Your task to perform on an android device: Clear the cart on bestbuy.com. Search for "apple airpods" on bestbuy.com, select the first entry, add it to the cart, then select checkout. Image 0: 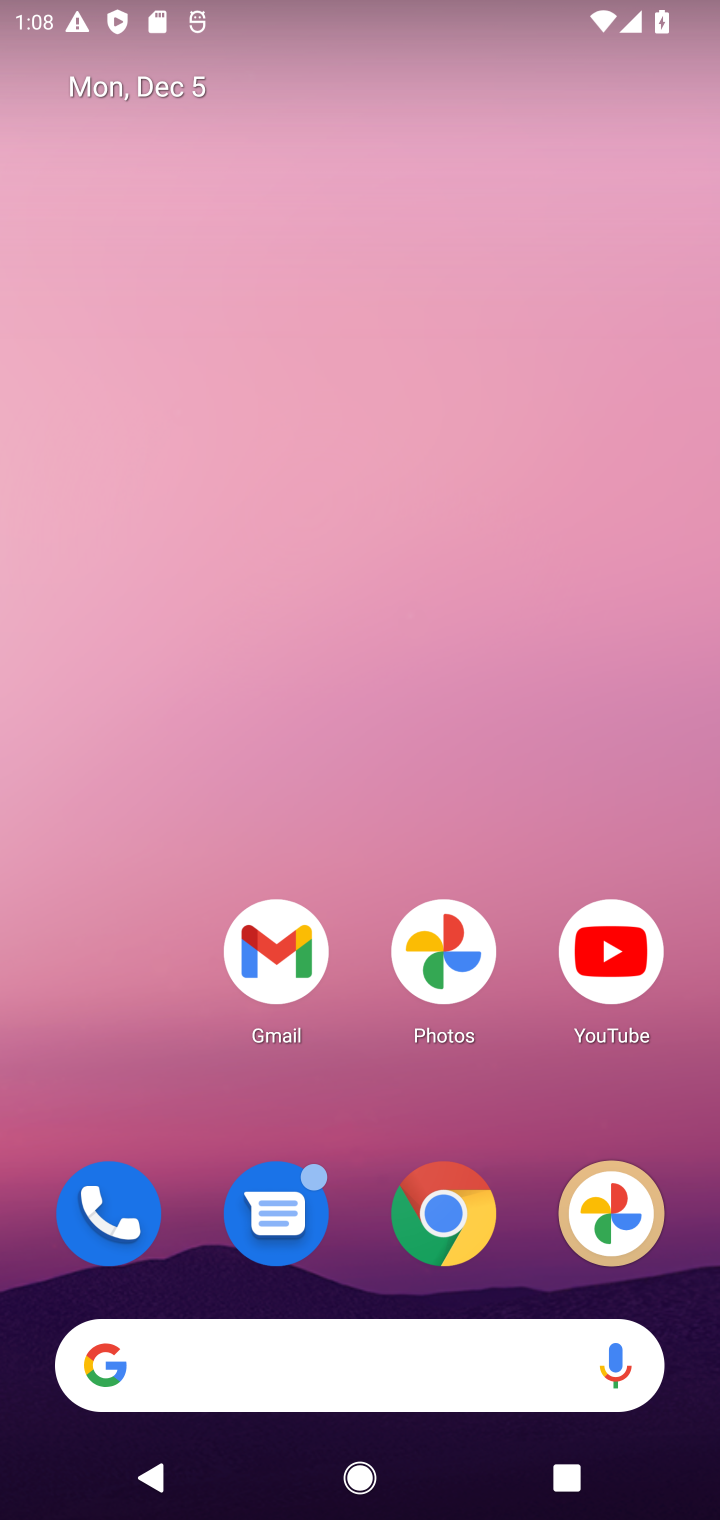
Step 0: click (461, 1213)
Your task to perform on an android device: Clear the cart on bestbuy.com. Search for "apple airpods" on bestbuy.com, select the first entry, add it to the cart, then select checkout. Image 1: 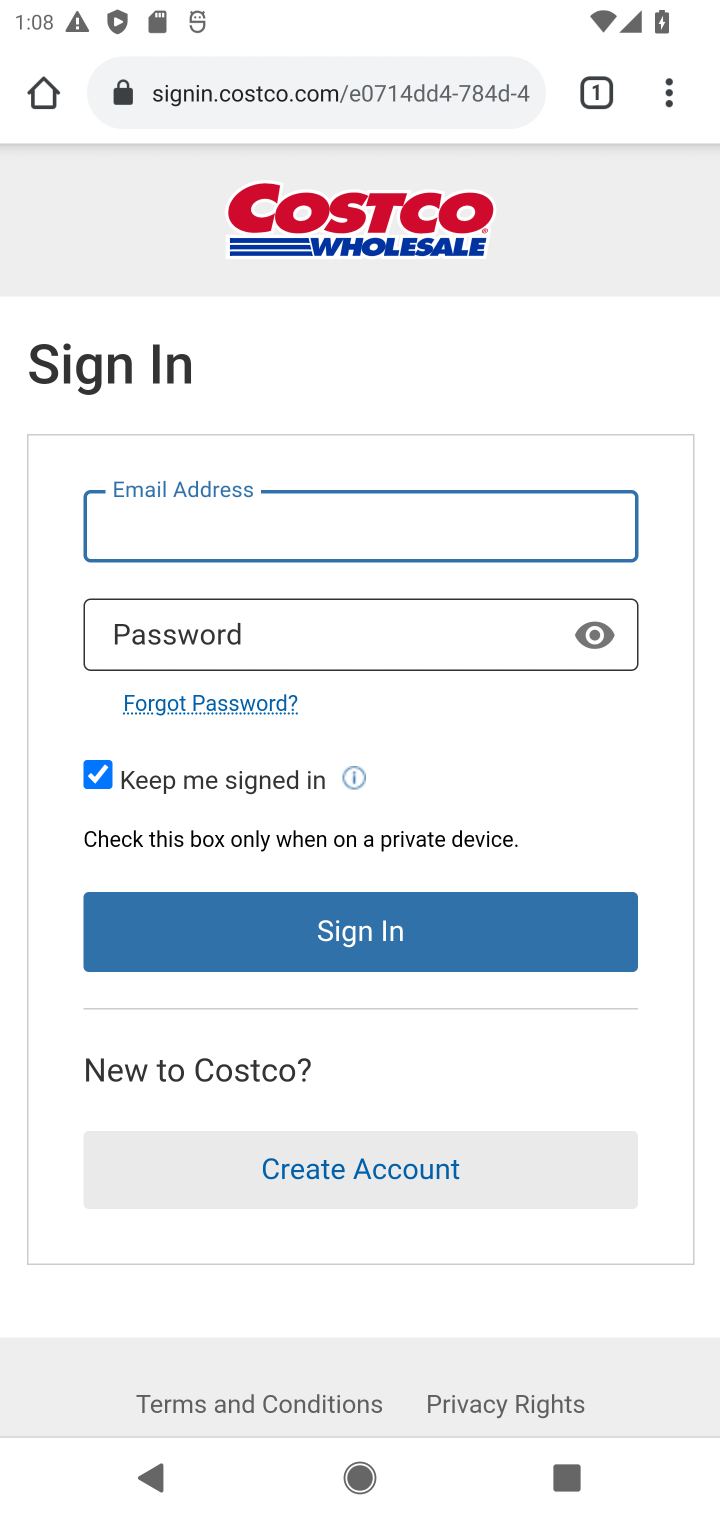
Step 1: click (328, 77)
Your task to perform on an android device: Clear the cart on bestbuy.com. Search for "apple airpods" on bestbuy.com, select the first entry, add it to the cart, then select checkout. Image 2: 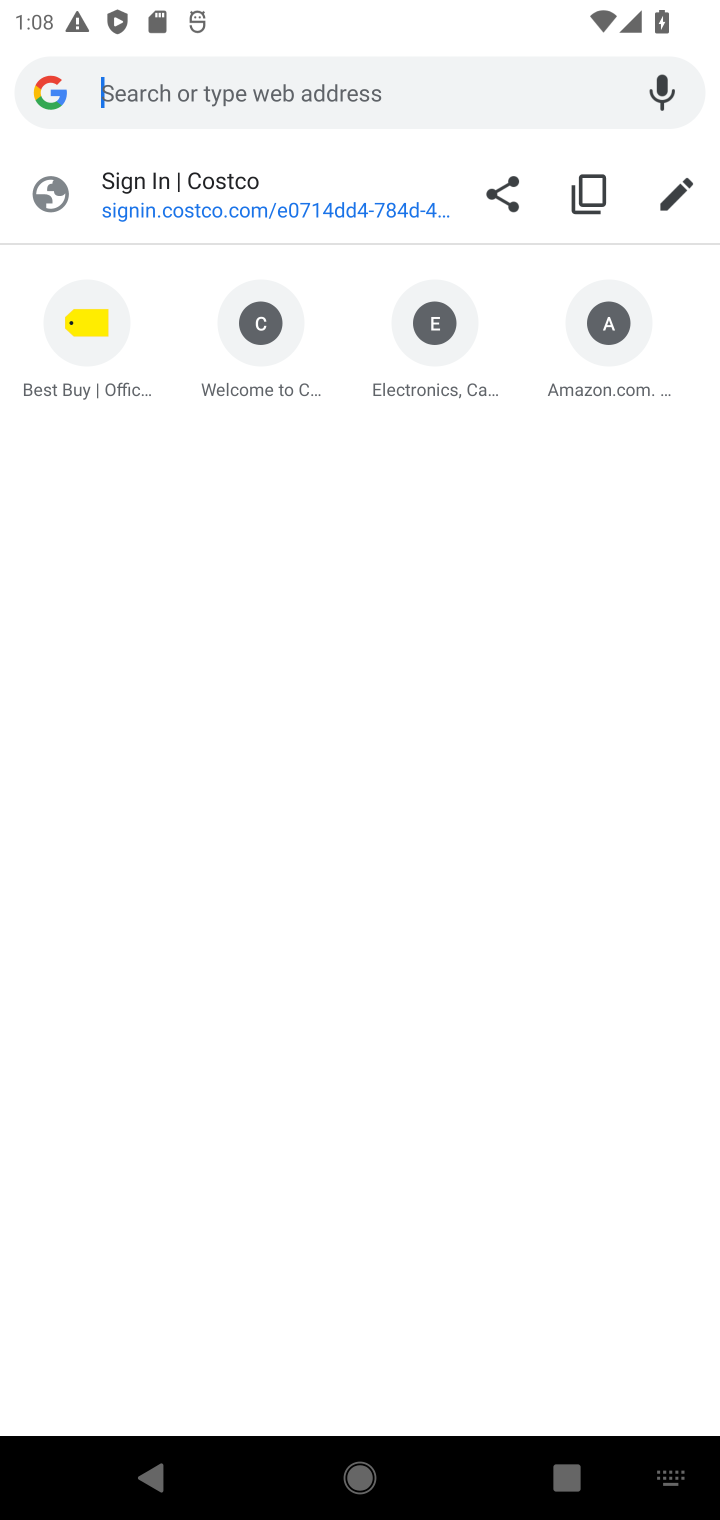
Step 2: click (65, 400)
Your task to perform on an android device: Clear the cart on bestbuy.com. Search for "apple airpods" on bestbuy.com, select the first entry, add it to the cart, then select checkout. Image 3: 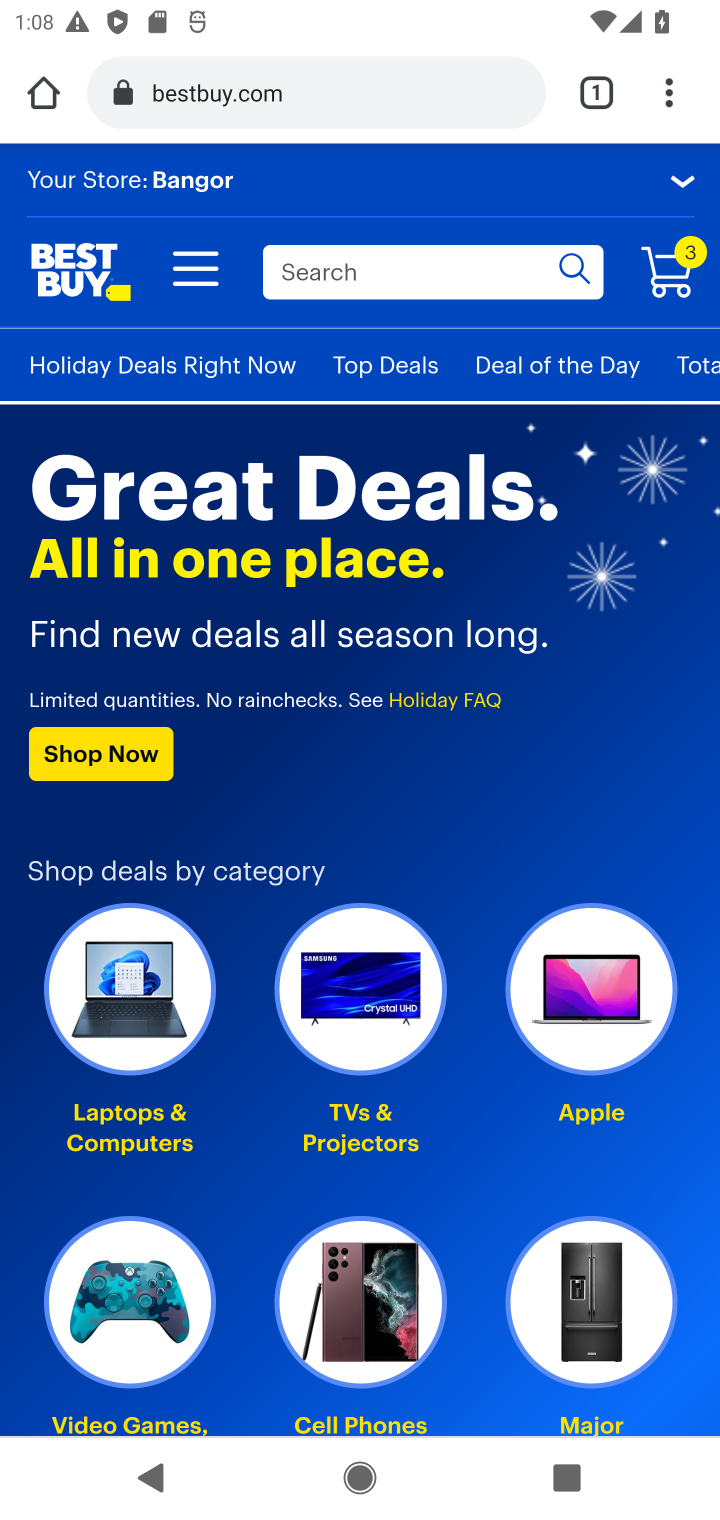
Step 3: click (675, 272)
Your task to perform on an android device: Clear the cart on bestbuy.com. Search for "apple airpods" on bestbuy.com, select the first entry, add it to the cart, then select checkout. Image 4: 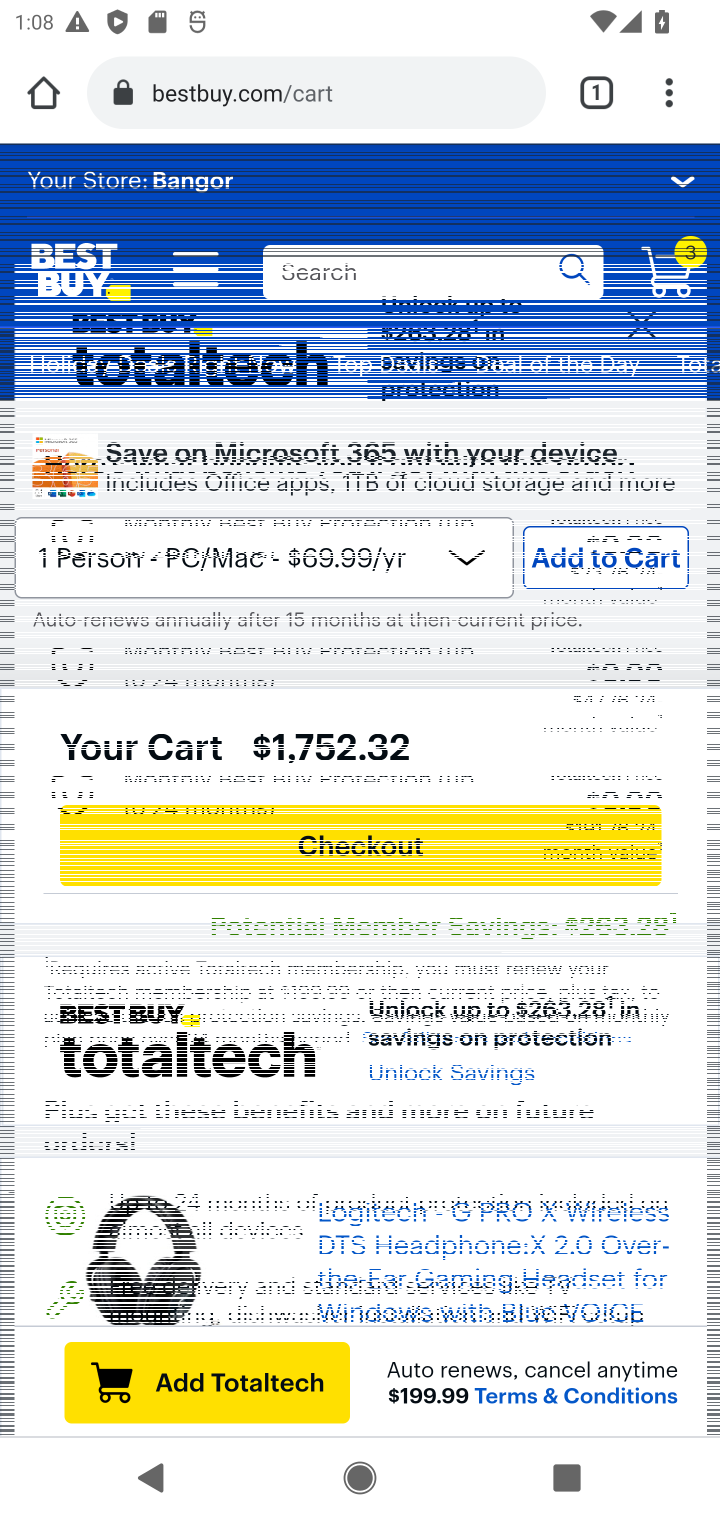
Step 4: click (645, 330)
Your task to perform on an android device: Clear the cart on bestbuy.com. Search for "apple airpods" on bestbuy.com, select the first entry, add it to the cart, then select checkout. Image 5: 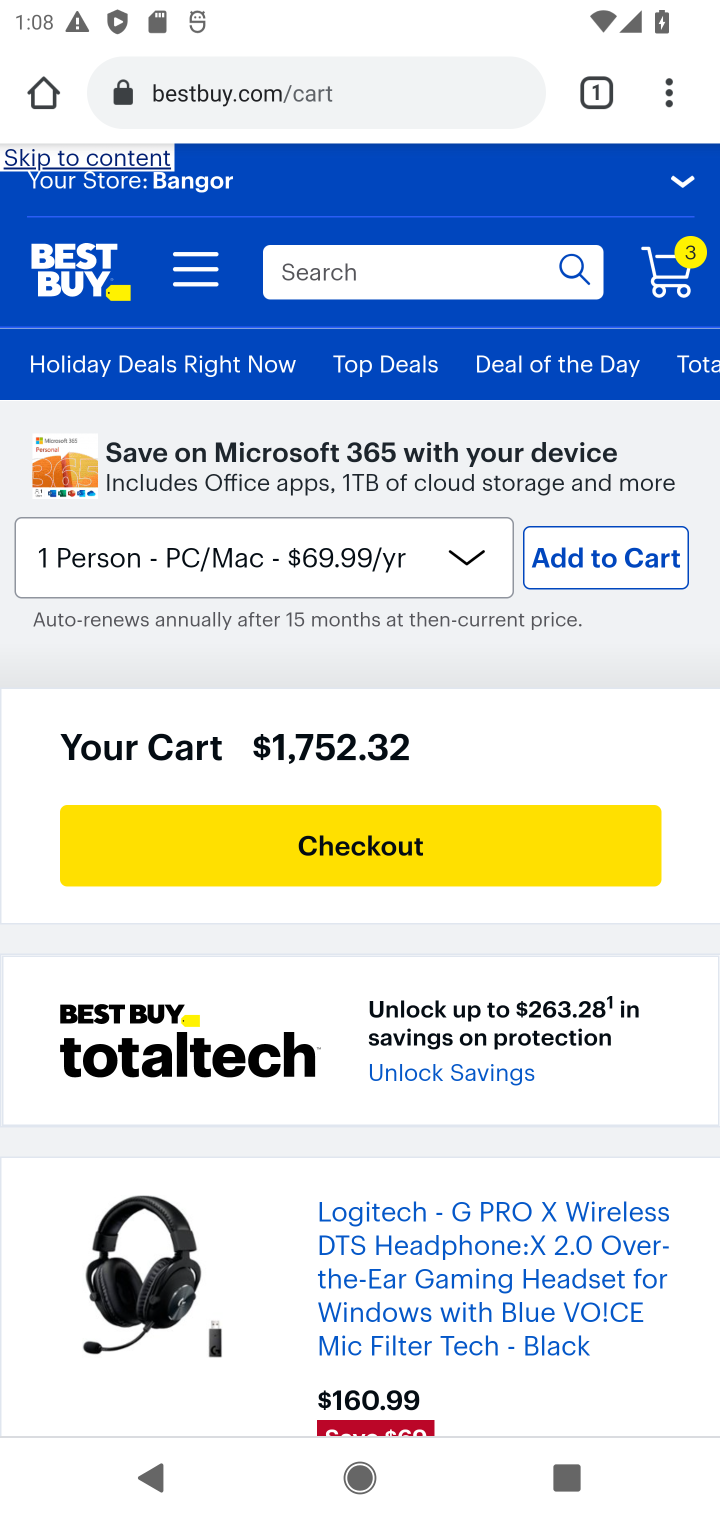
Step 5: drag from (340, 889) to (382, 375)
Your task to perform on an android device: Clear the cart on bestbuy.com. Search for "apple airpods" on bestbuy.com, select the first entry, add it to the cart, then select checkout. Image 6: 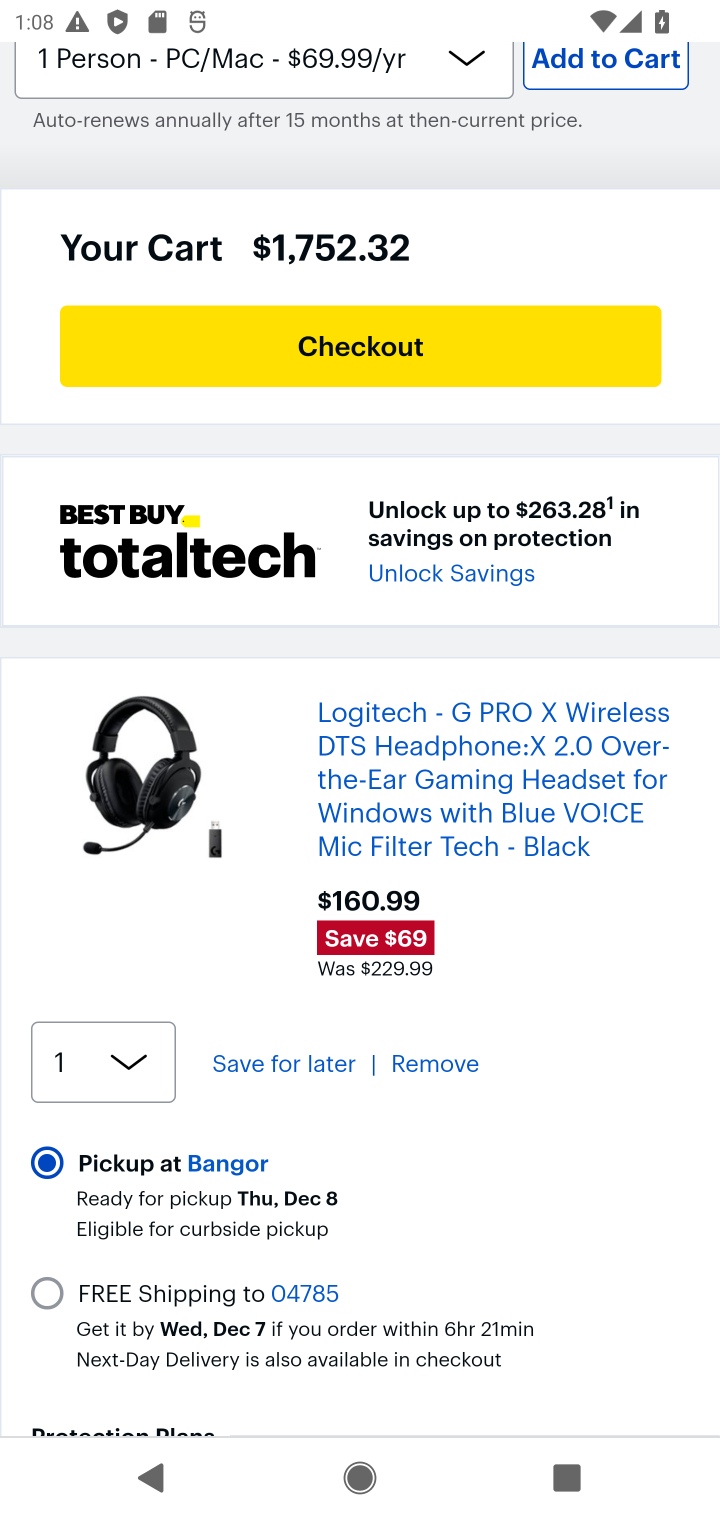
Step 6: click (444, 1063)
Your task to perform on an android device: Clear the cart on bestbuy.com. Search for "apple airpods" on bestbuy.com, select the first entry, add it to the cart, then select checkout. Image 7: 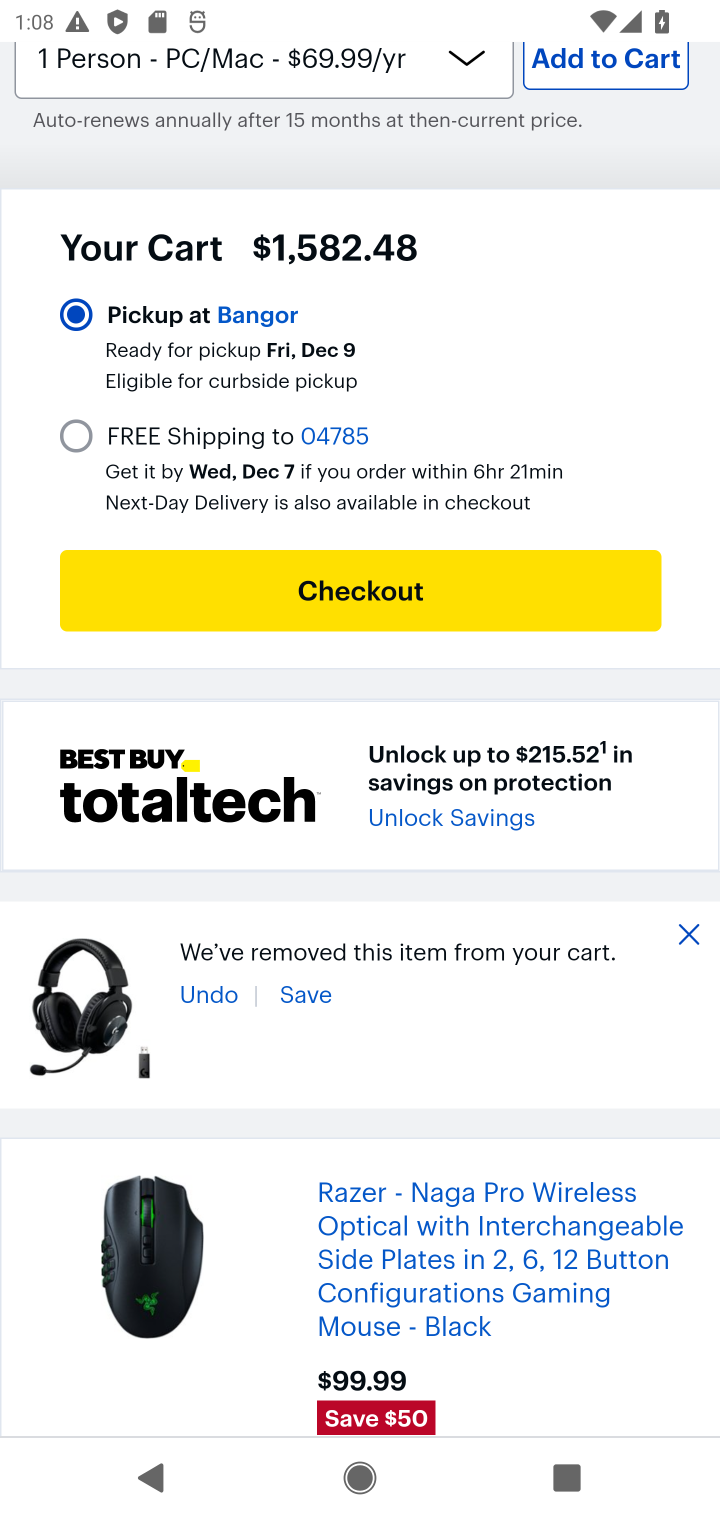
Step 7: drag from (450, 1028) to (518, 497)
Your task to perform on an android device: Clear the cart on bestbuy.com. Search for "apple airpods" on bestbuy.com, select the first entry, add it to the cart, then select checkout. Image 8: 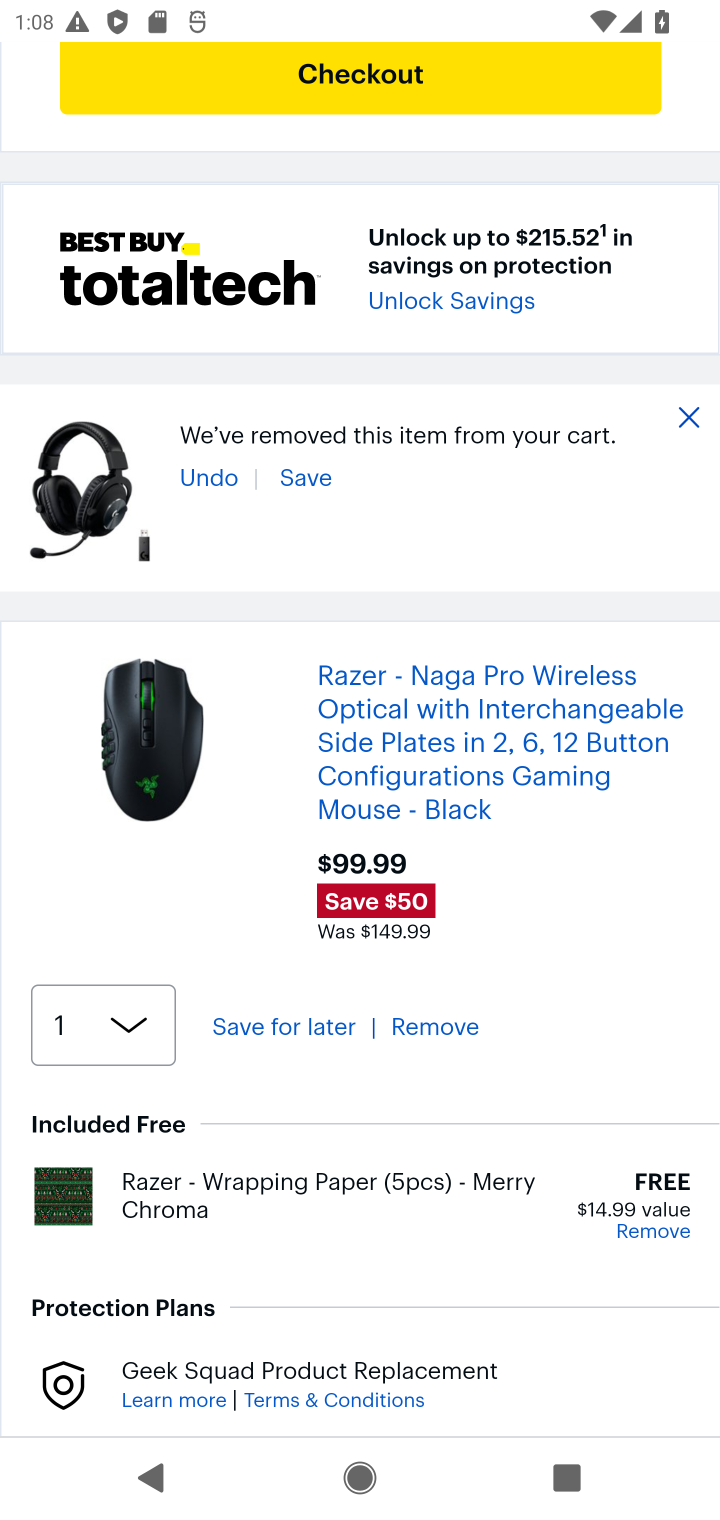
Step 8: click (446, 1036)
Your task to perform on an android device: Clear the cart on bestbuy.com. Search for "apple airpods" on bestbuy.com, select the first entry, add it to the cart, then select checkout. Image 9: 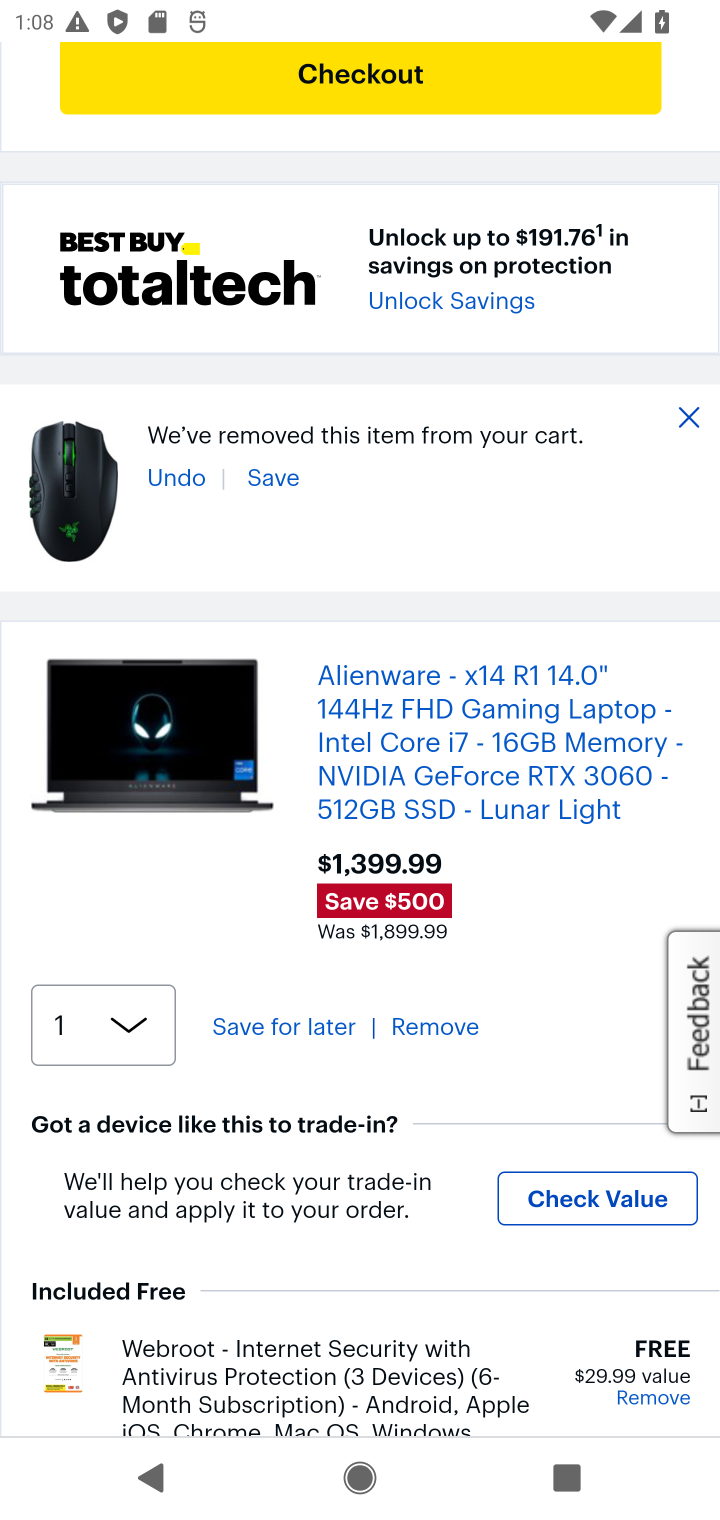
Step 9: click (446, 1036)
Your task to perform on an android device: Clear the cart on bestbuy.com. Search for "apple airpods" on bestbuy.com, select the first entry, add it to the cart, then select checkout. Image 10: 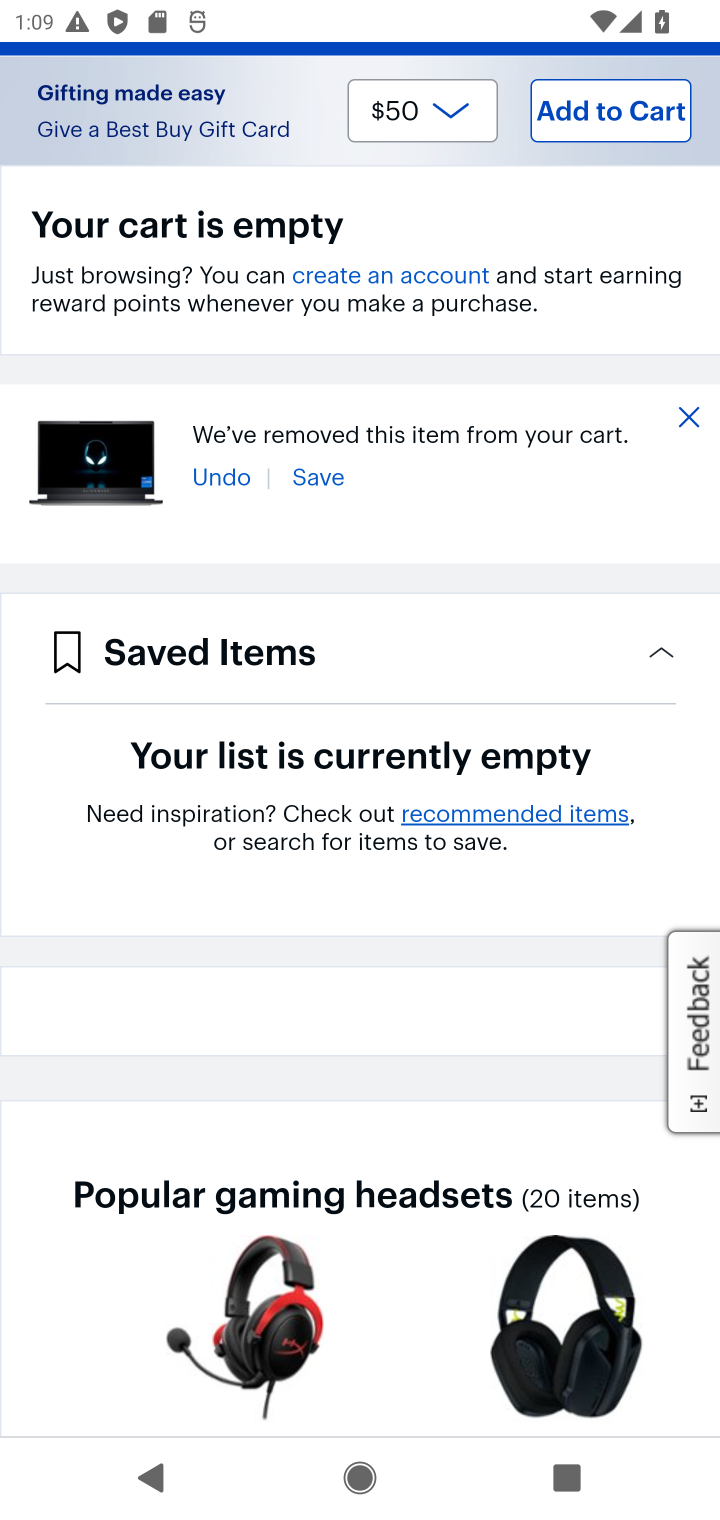
Step 10: drag from (561, 448) to (481, 796)
Your task to perform on an android device: Clear the cart on bestbuy.com. Search for "apple airpods" on bestbuy.com, select the first entry, add it to the cart, then select checkout. Image 11: 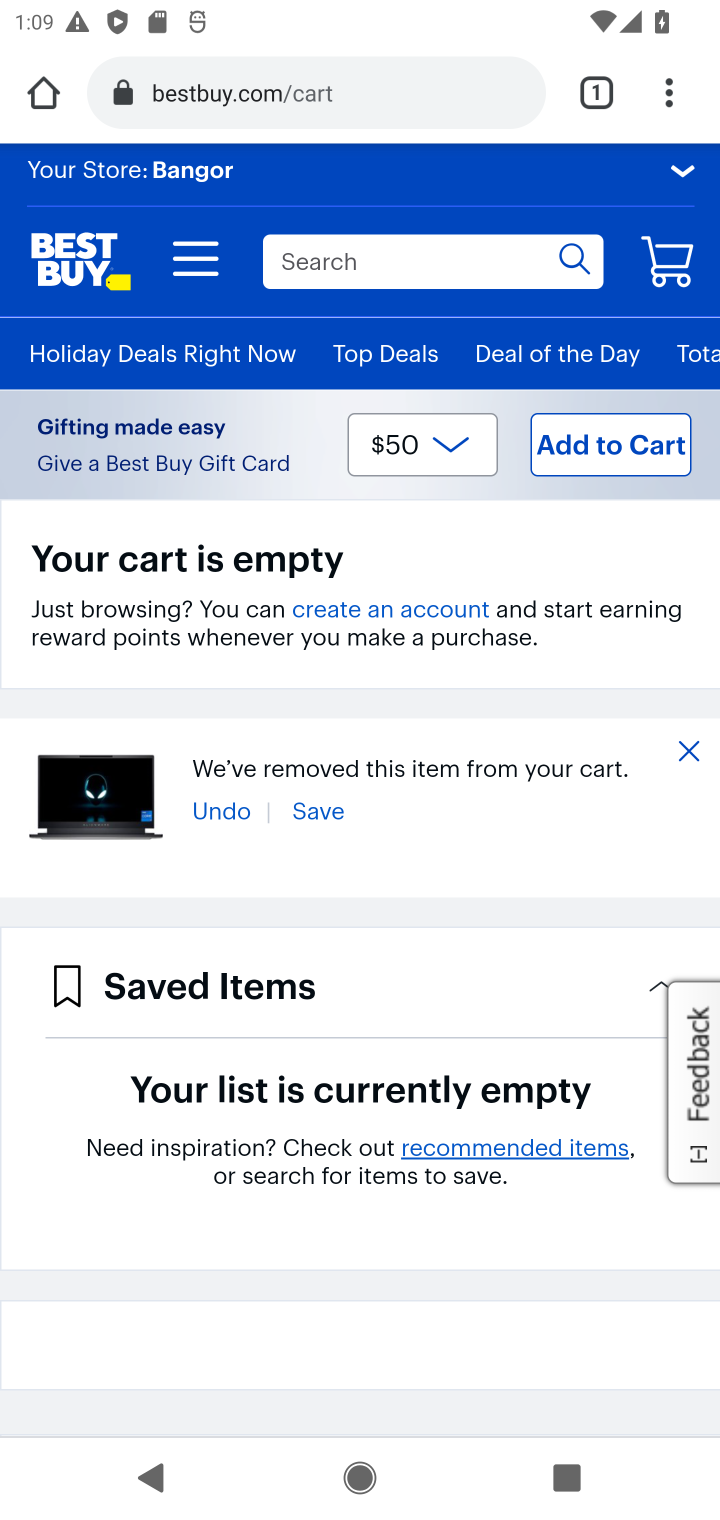
Step 11: click (288, 256)
Your task to perform on an android device: Clear the cart on bestbuy.com. Search for "apple airpods" on bestbuy.com, select the first entry, add it to the cart, then select checkout. Image 12: 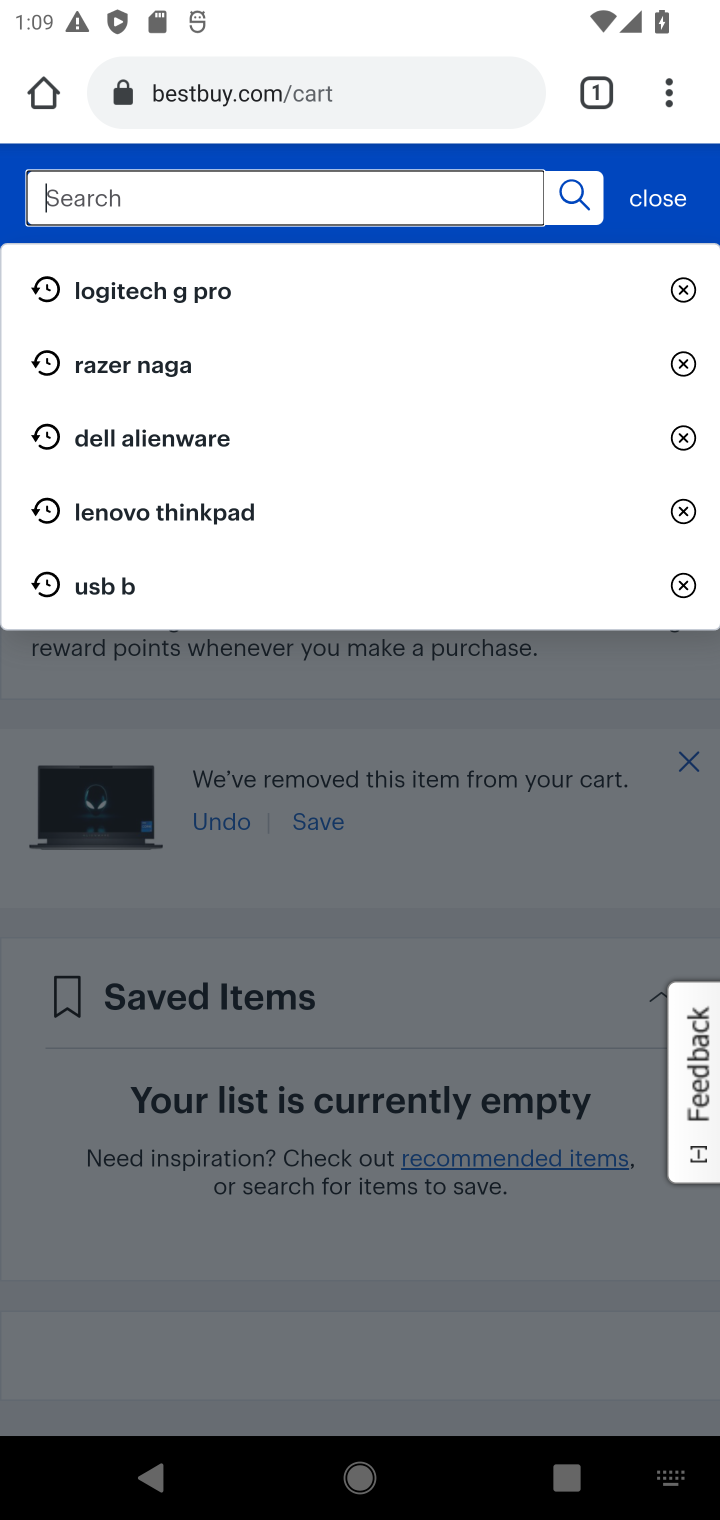
Step 12: type "apple airpods"
Your task to perform on an android device: Clear the cart on bestbuy.com. Search for "apple airpods" on bestbuy.com, select the first entry, add it to the cart, then select checkout. Image 13: 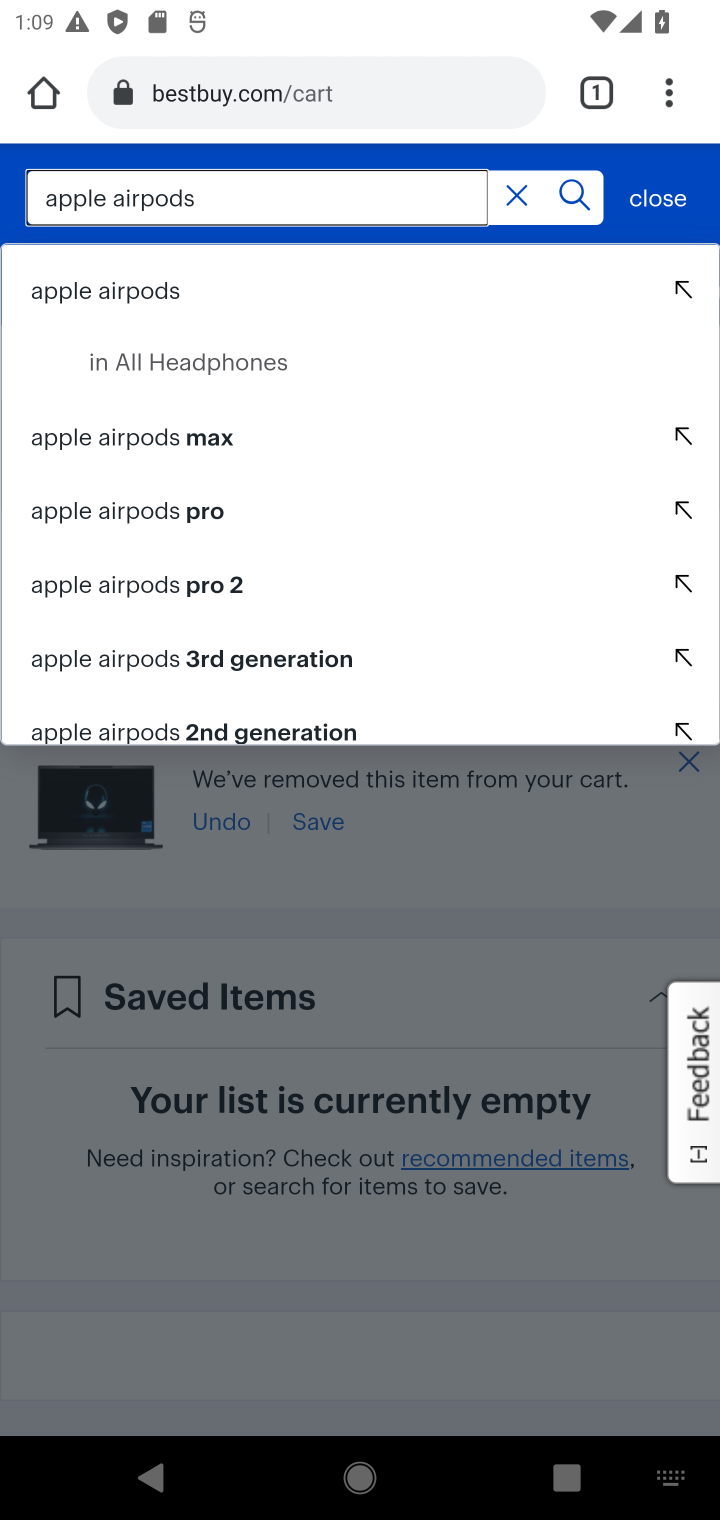
Step 13: click (97, 290)
Your task to perform on an android device: Clear the cart on bestbuy.com. Search for "apple airpods" on bestbuy.com, select the first entry, add it to the cart, then select checkout. Image 14: 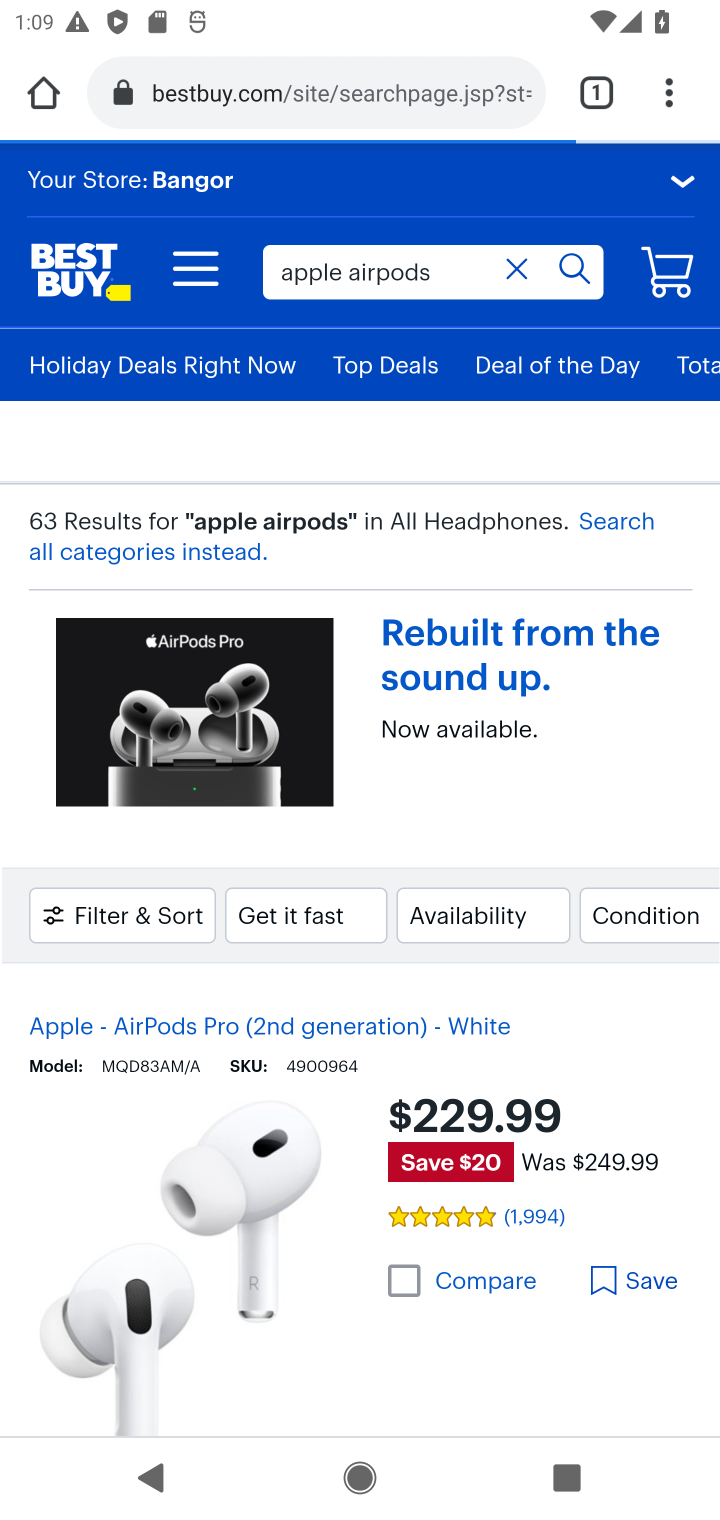
Step 14: drag from (267, 823) to (335, 442)
Your task to perform on an android device: Clear the cart on bestbuy.com. Search for "apple airpods" on bestbuy.com, select the first entry, add it to the cart, then select checkout. Image 15: 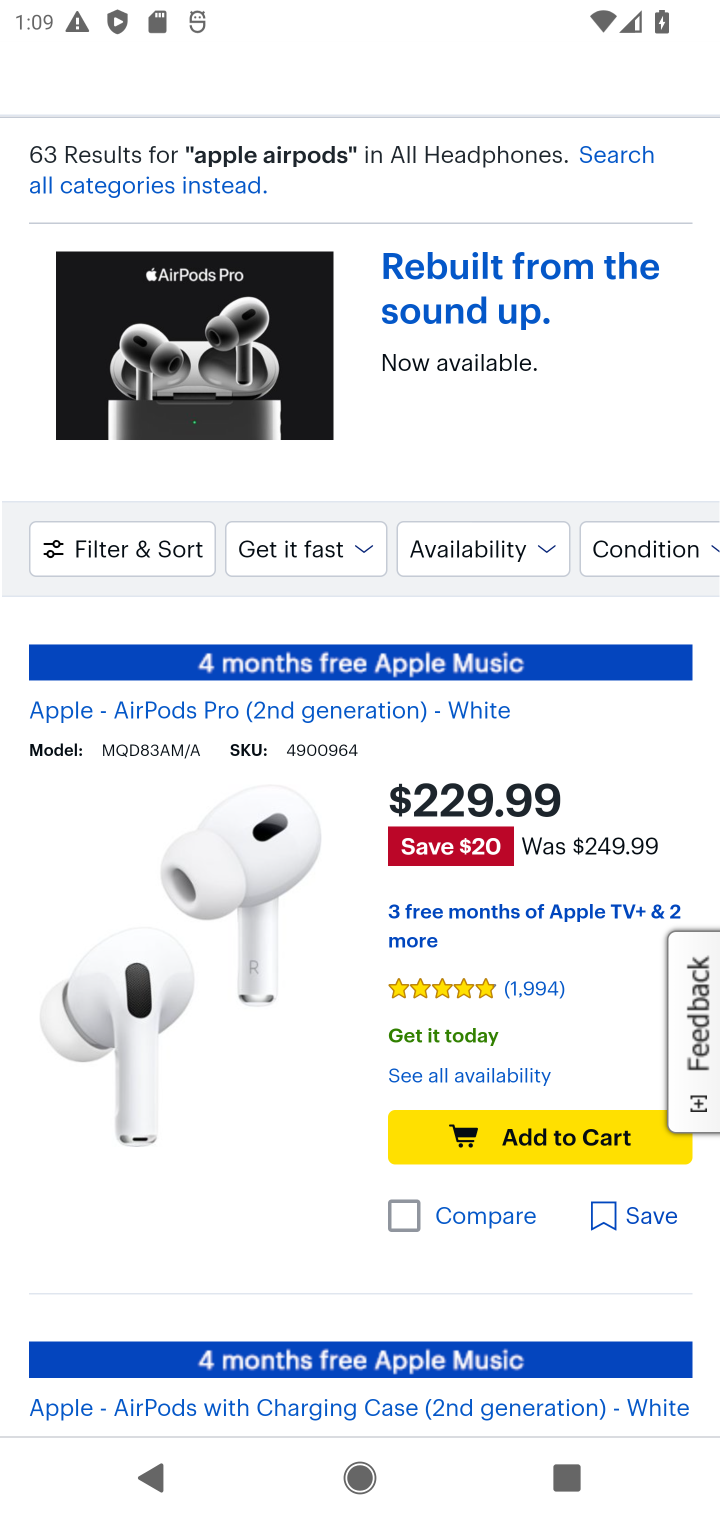
Step 15: click (525, 1134)
Your task to perform on an android device: Clear the cart on bestbuy.com. Search for "apple airpods" on bestbuy.com, select the first entry, add it to the cart, then select checkout. Image 16: 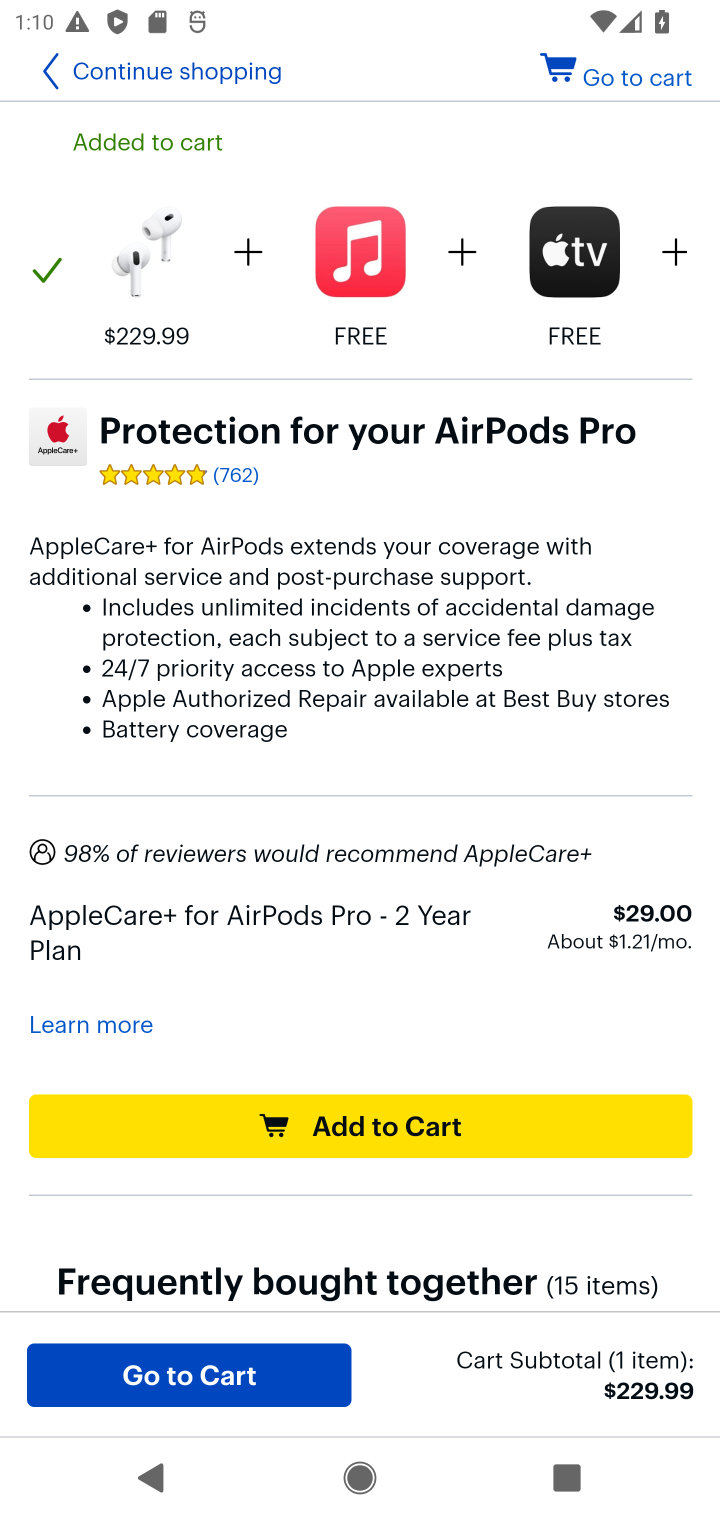
Step 16: click (636, 90)
Your task to perform on an android device: Clear the cart on bestbuy.com. Search for "apple airpods" on bestbuy.com, select the first entry, add it to the cart, then select checkout. Image 17: 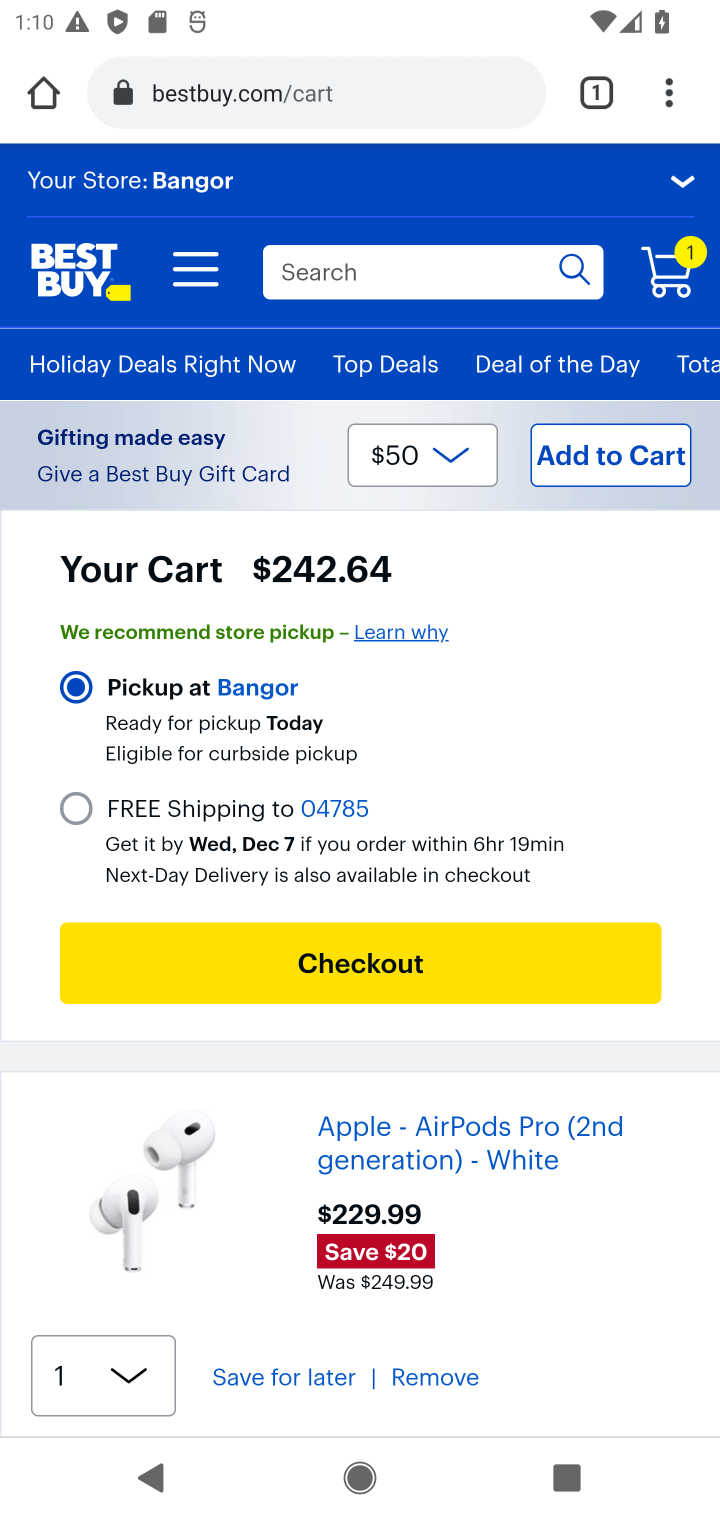
Step 17: click (351, 975)
Your task to perform on an android device: Clear the cart on bestbuy.com. Search for "apple airpods" on bestbuy.com, select the first entry, add it to the cart, then select checkout. Image 18: 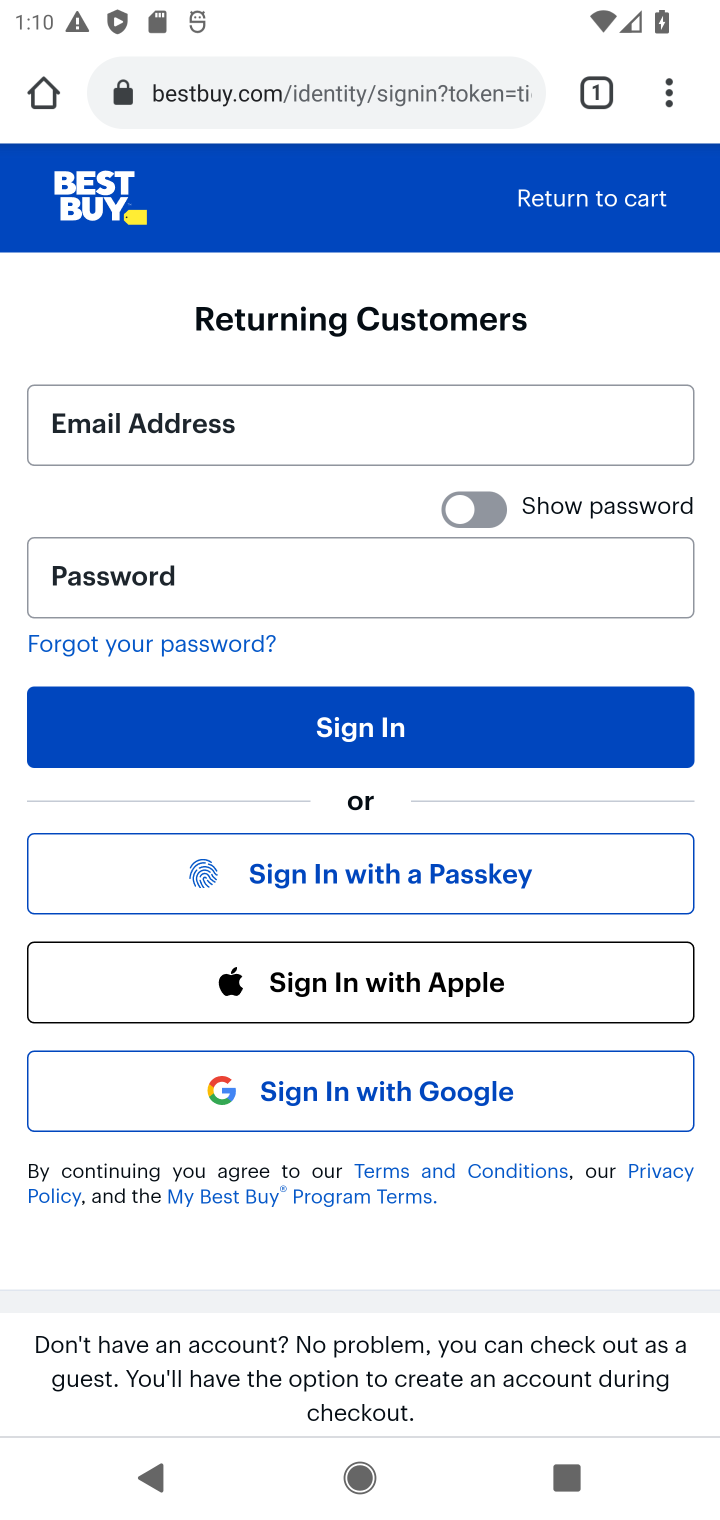
Step 18: task complete